Your task to perform on an android device: turn vacation reply on in the gmail app Image 0: 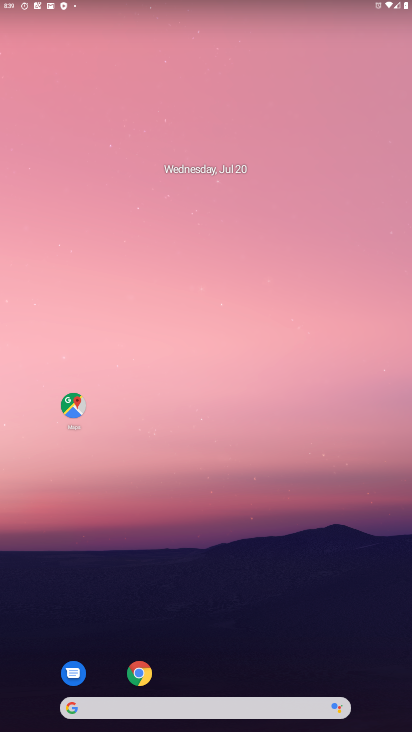
Step 0: drag from (200, 667) to (194, 176)
Your task to perform on an android device: turn vacation reply on in the gmail app Image 1: 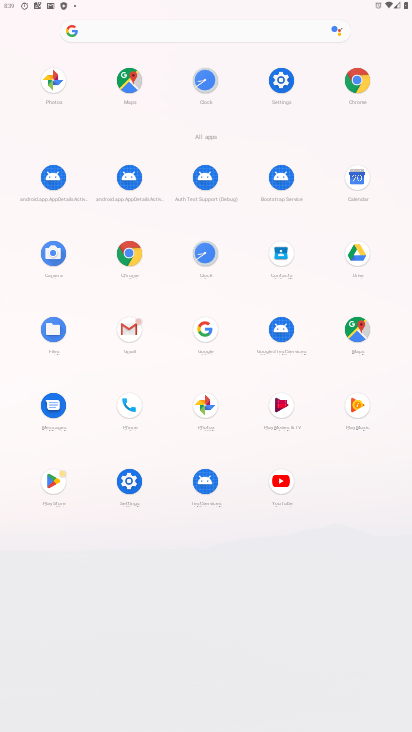
Step 1: click (131, 327)
Your task to perform on an android device: turn vacation reply on in the gmail app Image 2: 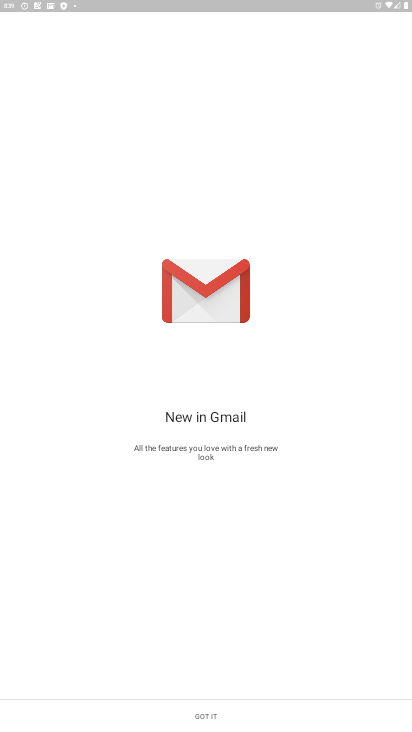
Step 2: click (206, 712)
Your task to perform on an android device: turn vacation reply on in the gmail app Image 3: 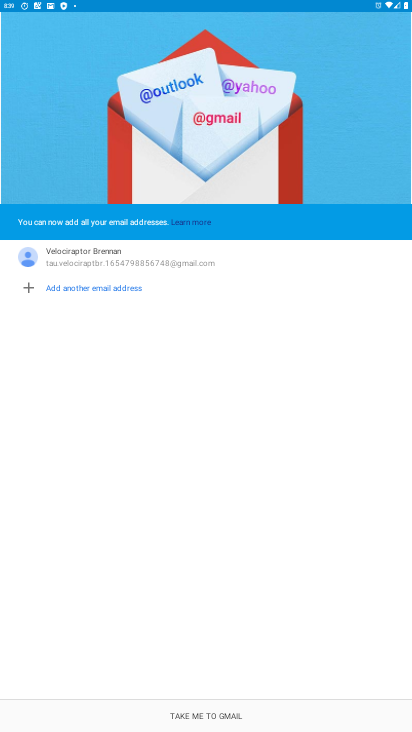
Step 3: click (210, 711)
Your task to perform on an android device: turn vacation reply on in the gmail app Image 4: 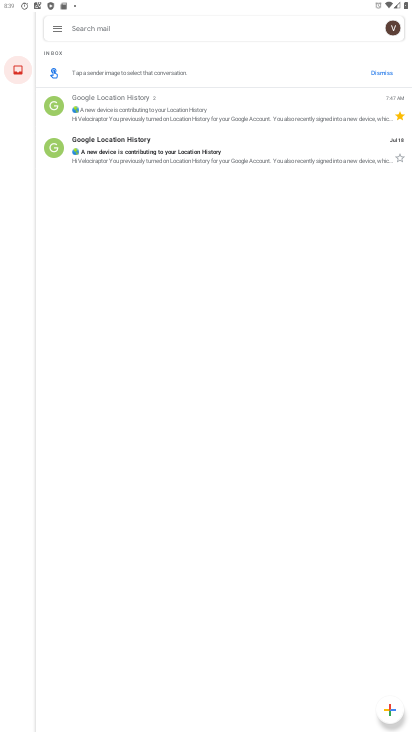
Step 4: click (60, 29)
Your task to perform on an android device: turn vacation reply on in the gmail app Image 5: 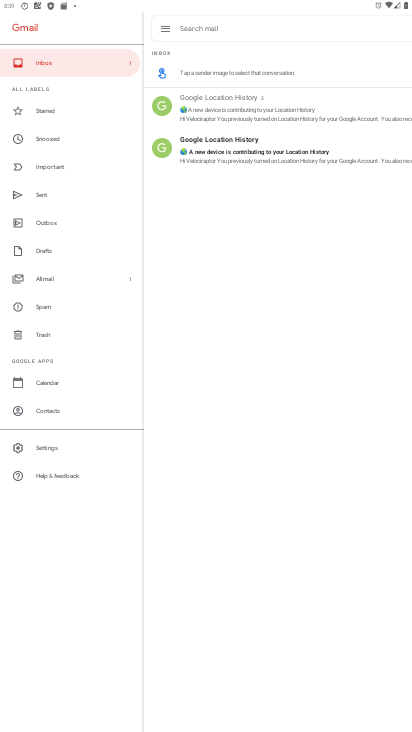
Step 5: click (48, 449)
Your task to perform on an android device: turn vacation reply on in the gmail app Image 6: 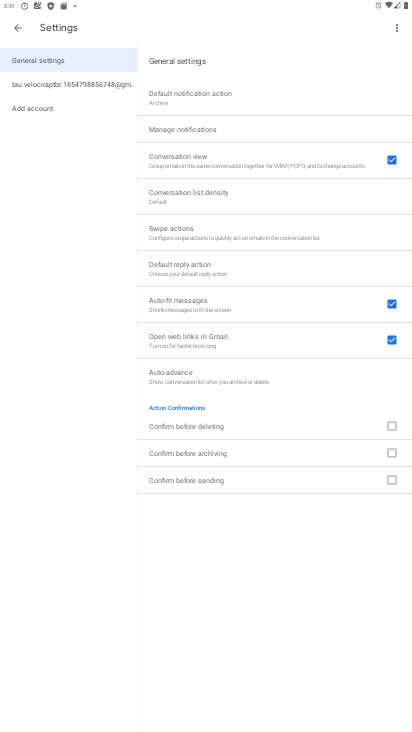
Step 6: click (92, 79)
Your task to perform on an android device: turn vacation reply on in the gmail app Image 7: 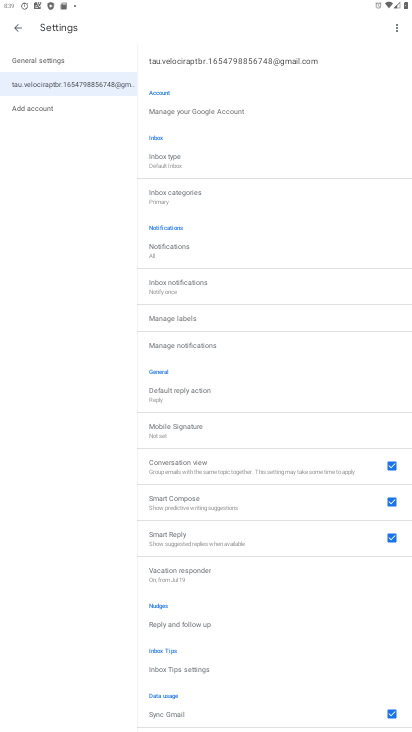
Step 7: click (203, 573)
Your task to perform on an android device: turn vacation reply on in the gmail app Image 8: 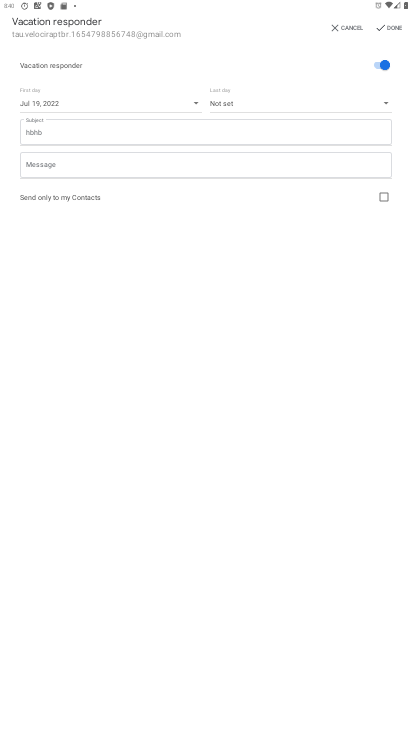
Step 8: task complete